Your task to perform on an android device: empty trash in google photos Image 0: 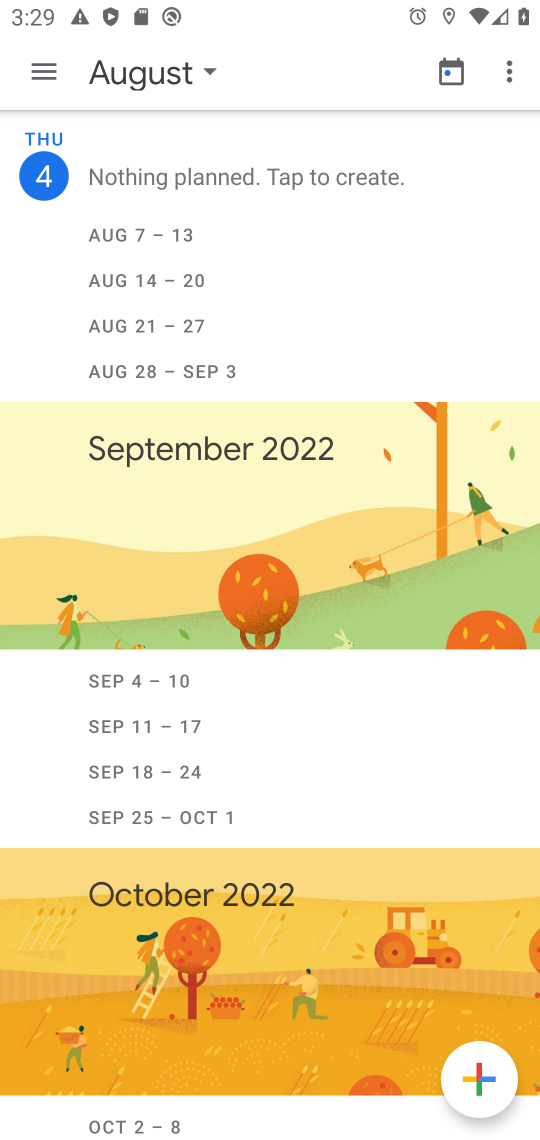
Step 0: press home button
Your task to perform on an android device: empty trash in google photos Image 1: 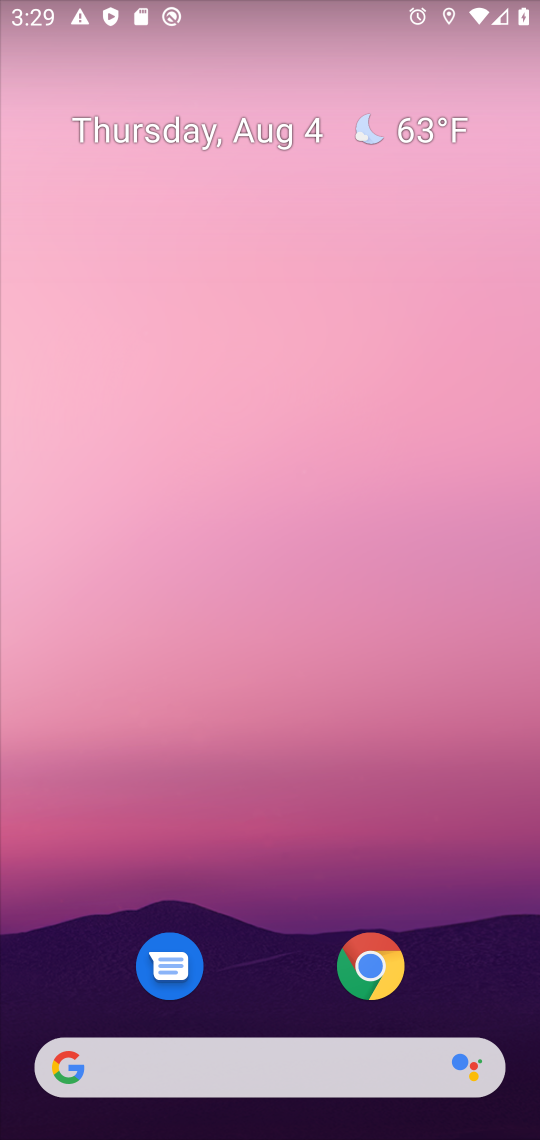
Step 1: drag from (295, 1036) to (305, 522)
Your task to perform on an android device: empty trash in google photos Image 2: 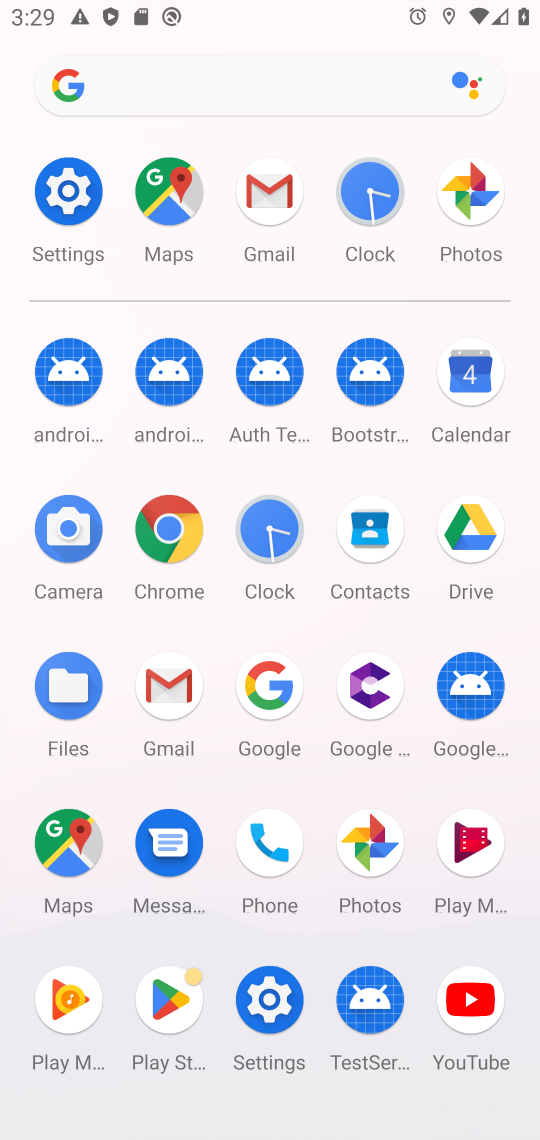
Step 2: click (476, 196)
Your task to perform on an android device: empty trash in google photos Image 3: 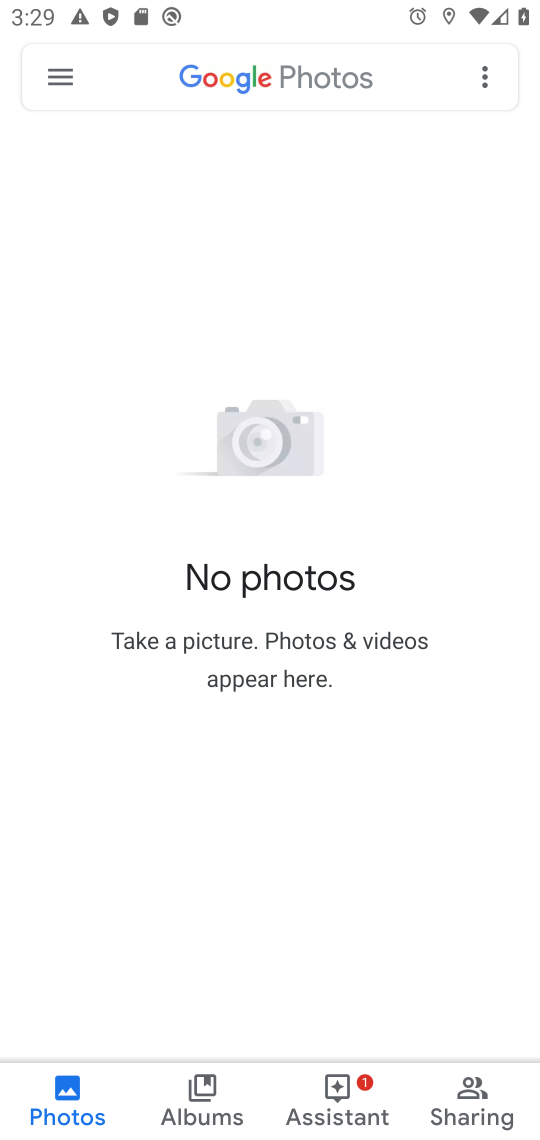
Step 3: click (58, 84)
Your task to perform on an android device: empty trash in google photos Image 4: 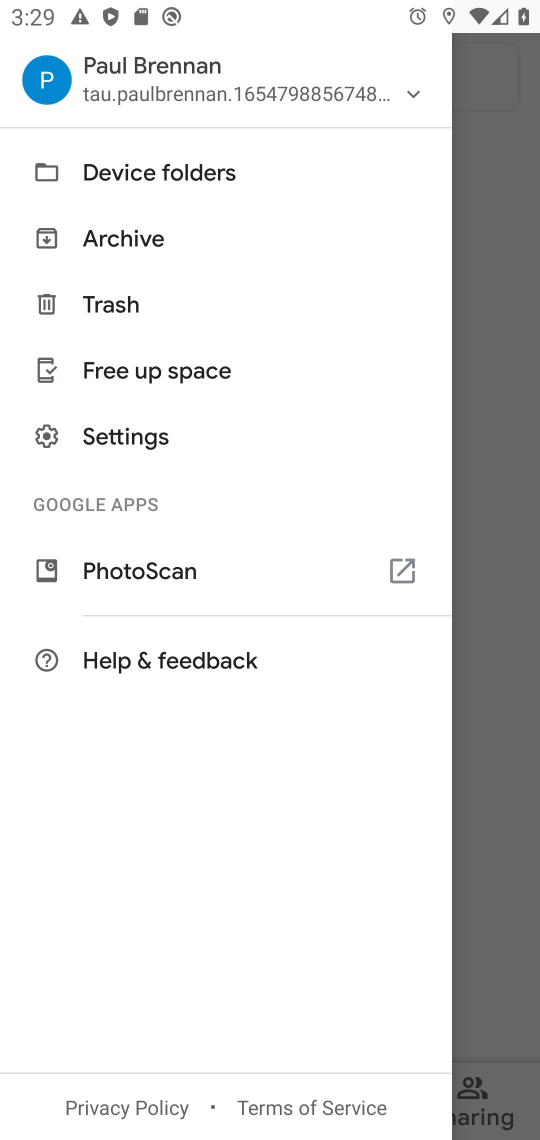
Step 4: click (113, 313)
Your task to perform on an android device: empty trash in google photos Image 5: 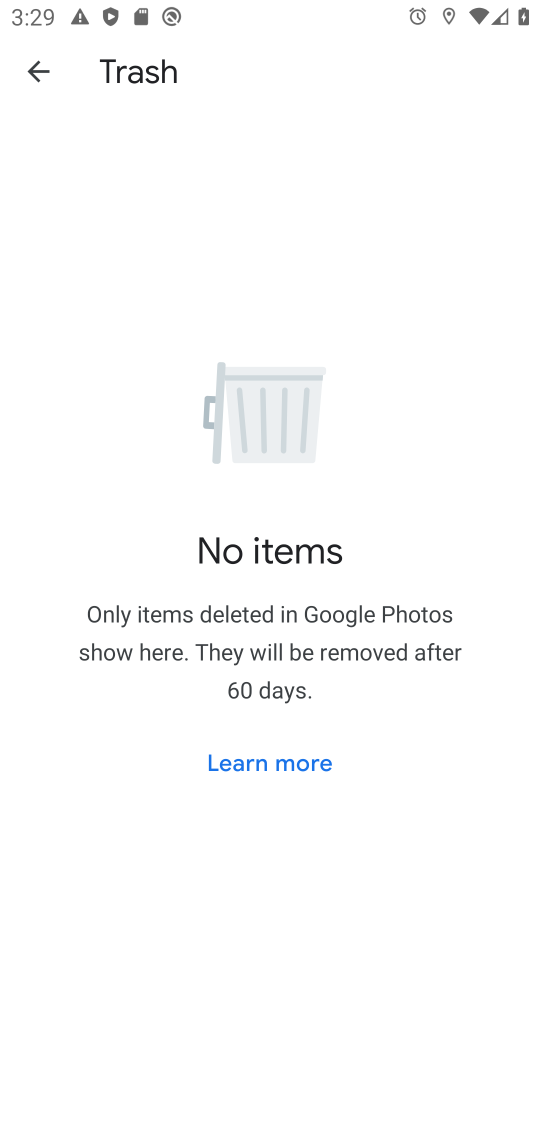
Step 5: task complete